Your task to perform on an android device: Is it going to rain today? Image 0: 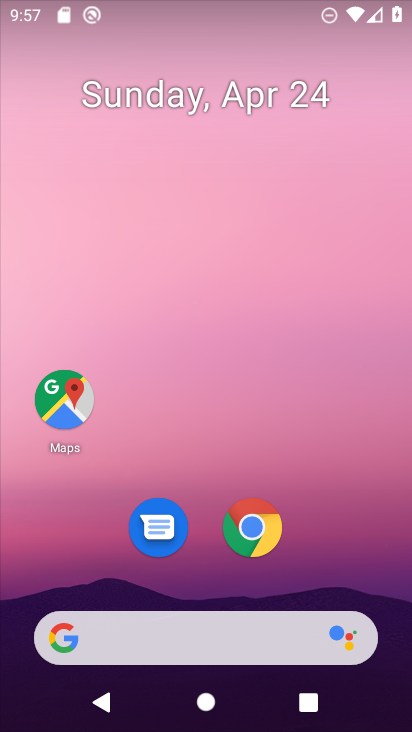
Step 0: click (182, 649)
Your task to perform on an android device: Is it going to rain today? Image 1: 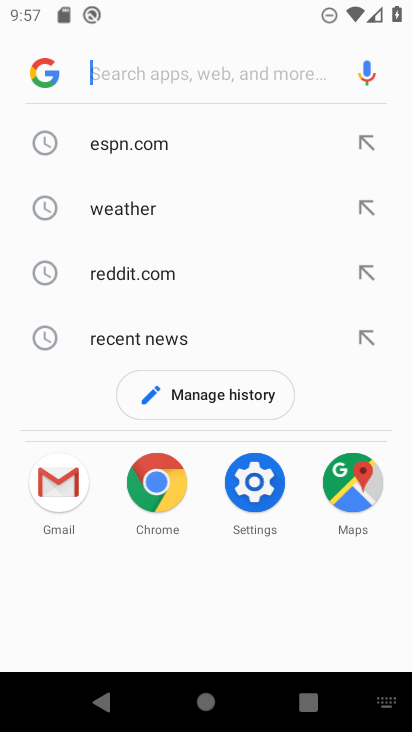
Step 1: click (138, 200)
Your task to perform on an android device: Is it going to rain today? Image 2: 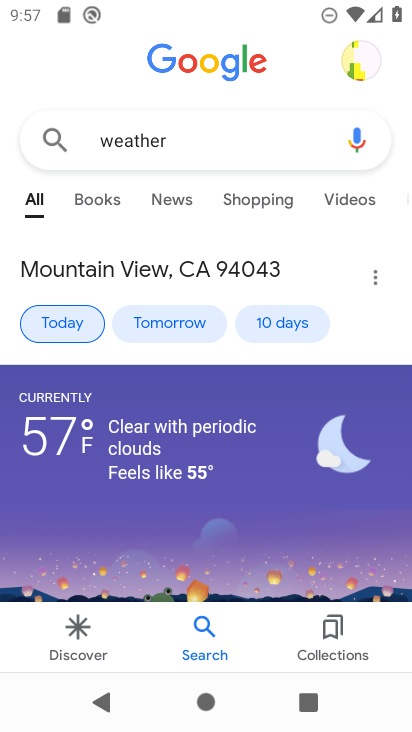
Step 2: task complete